Your task to perform on an android device: open a bookmark in the chrome app Image 0: 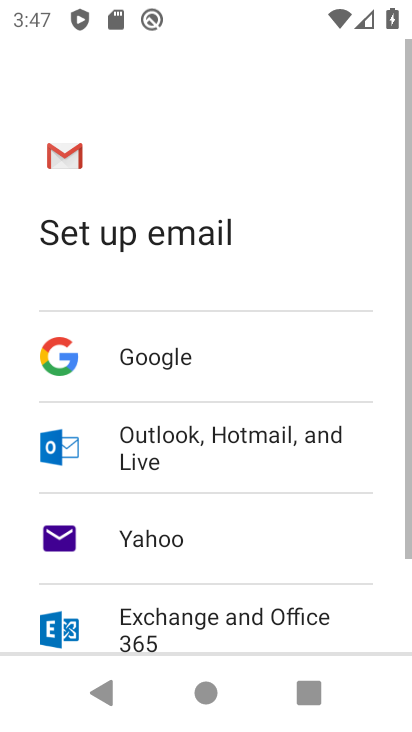
Step 0: press back button
Your task to perform on an android device: open a bookmark in the chrome app Image 1: 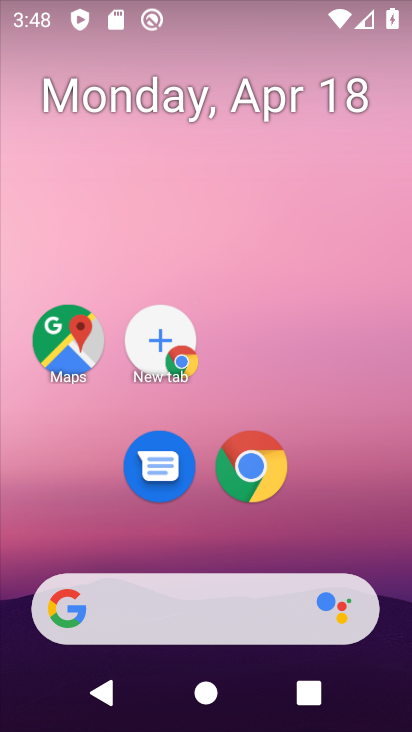
Step 1: drag from (329, 487) to (198, 1)
Your task to perform on an android device: open a bookmark in the chrome app Image 2: 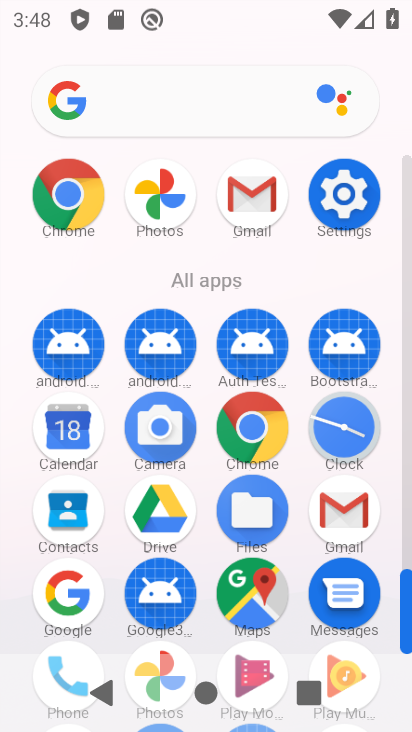
Step 2: drag from (18, 477) to (13, 216)
Your task to perform on an android device: open a bookmark in the chrome app Image 3: 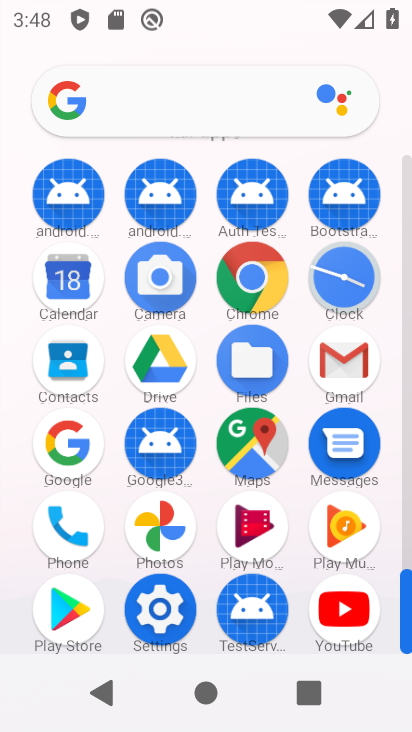
Step 3: click (247, 269)
Your task to perform on an android device: open a bookmark in the chrome app Image 4: 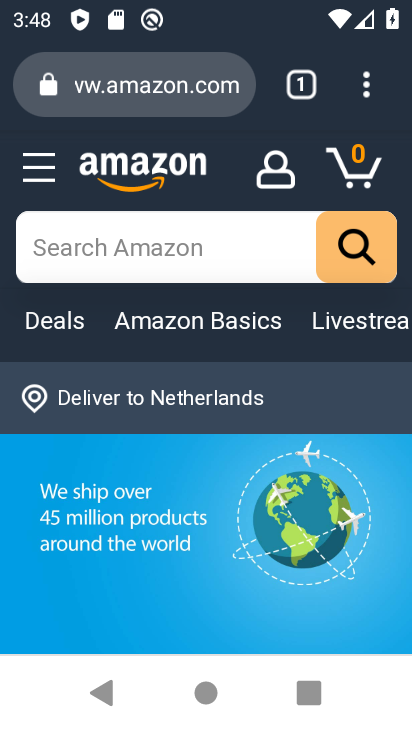
Step 4: click (367, 82)
Your task to perform on an android device: open a bookmark in the chrome app Image 5: 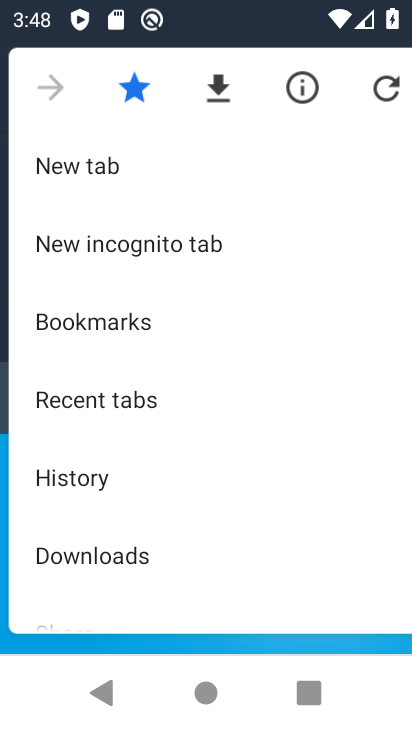
Step 5: click (135, 319)
Your task to perform on an android device: open a bookmark in the chrome app Image 6: 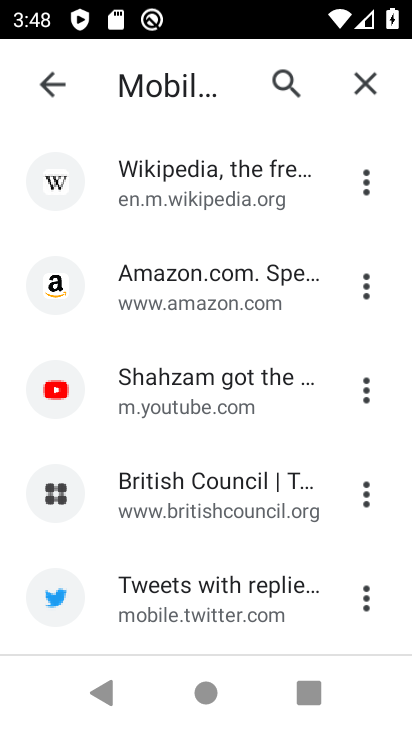
Step 6: click (194, 384)
Your task to perform on an android device: open a bookmark in the chrome app Image 7: 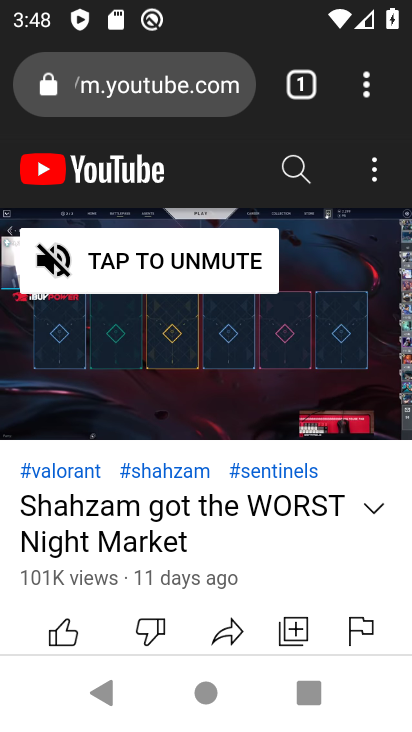
Step 7: task complete